Your task to perform on an android device: change the clock display to digital Image 0: 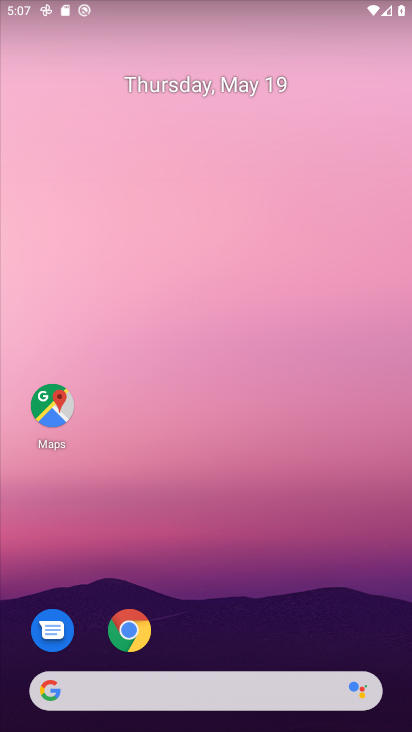
Step 0: drag from (257, 527) to (261, 20)
Your task to perform on an android device: change the clock display to digital Image 1: 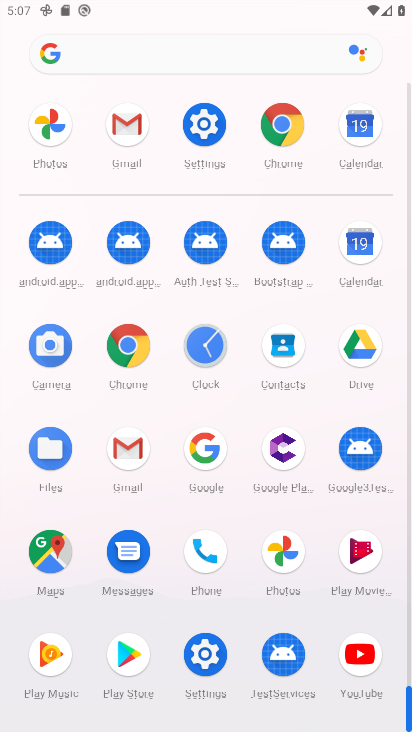
Step 1: drag from (15, 541) to (0, 235)
Your task to perform on an android device: change the clock display to digital Image 2: 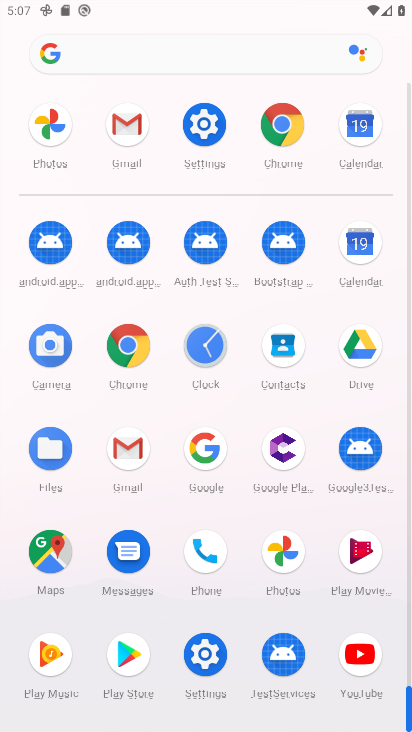
Step 2: click (205, 346)
Your task to perform on an android device: change the clock display to digital Image 3: 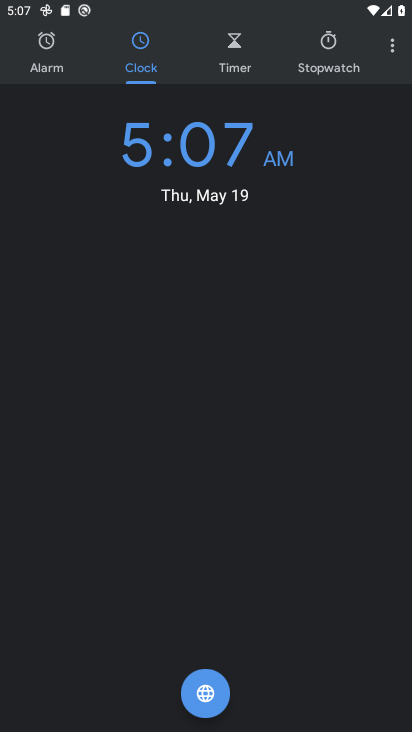
Step 3: drag from (390, 50) to (324, 84)
Your task to perform on an android device: change the clock display to digital Image 4: 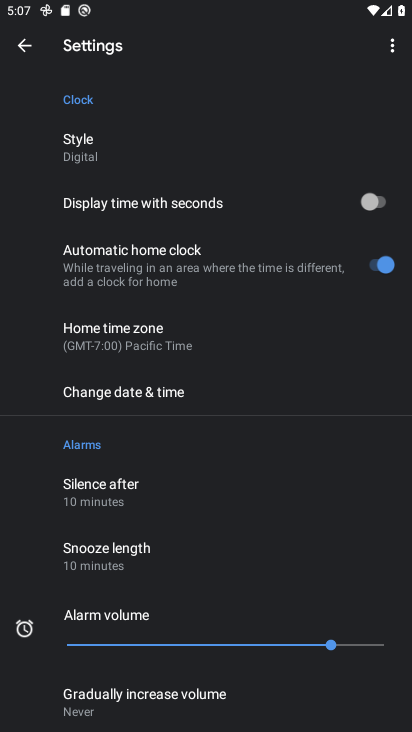
Step 4: click (154, 152)
Your task to perform on an android device: change the clock display to digital Image 5: 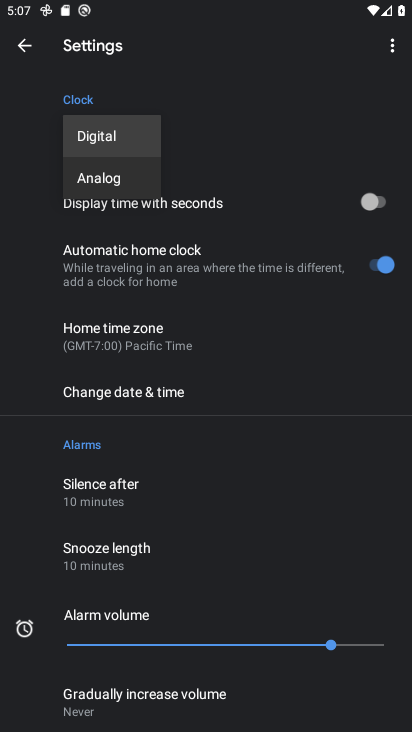
Step 5: click (132, 138)
Your task to perform on an android device: change the clock display to digital Image 6: 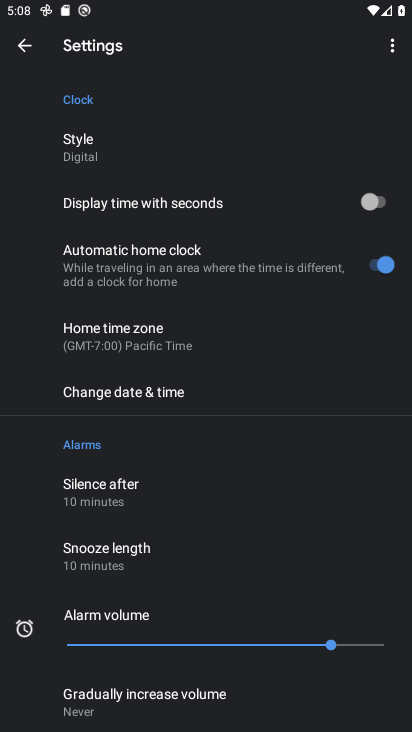
Step 6: task complete